Your task to perform on an android device: Open location settings Image 0: 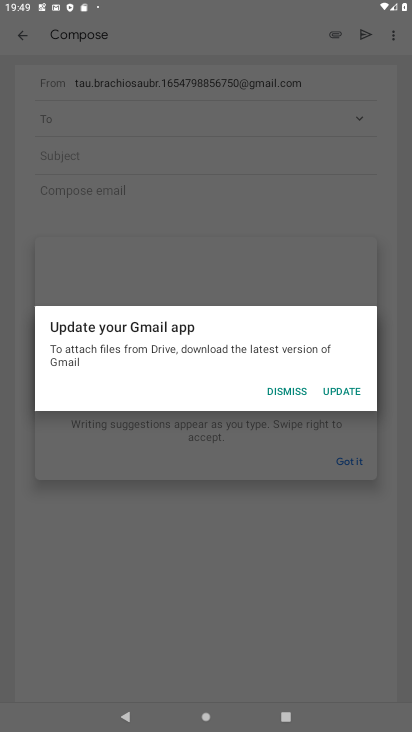
Step 0: press home button
Your task to perform on an android device: Open location settings Image 1: 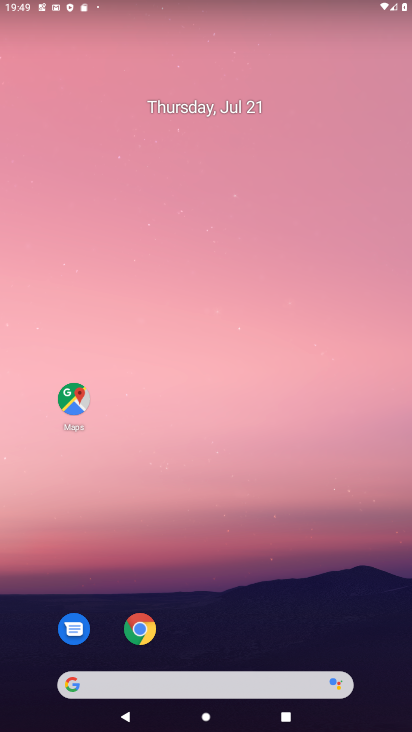
Step 1: drag from (86, 401) to (202, 140)
Your task to perform on an android device: Open location settings Image 2: 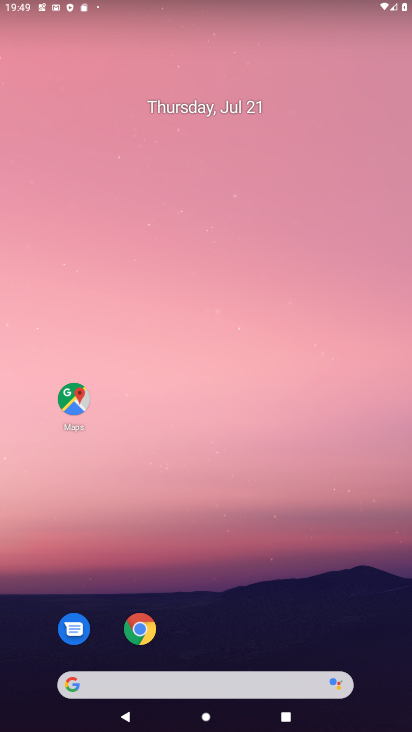
Step 2: drag from (375, 417) to (404, 310)
Your task to perform on an android device: Open location settings Image 3: 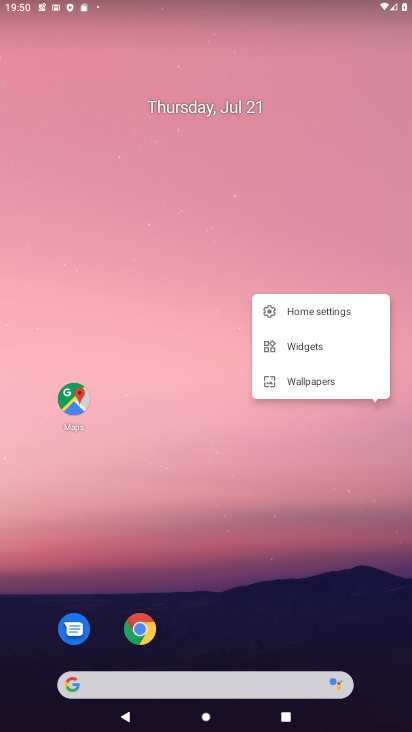
Step 3: press home button
Your task to perform on an android device: Open location settings Image 4: 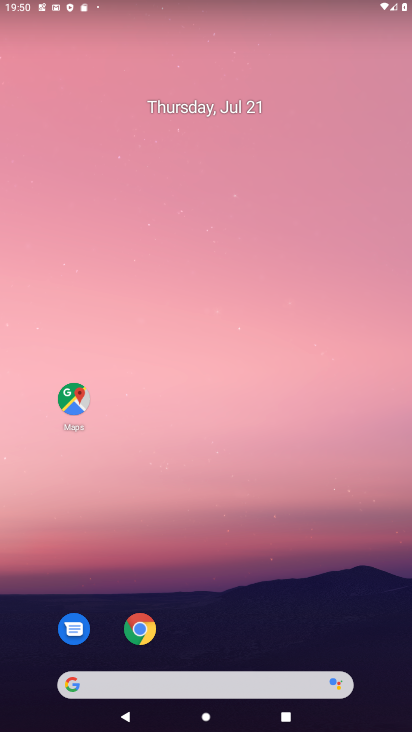
Step 4: drag from (84, 513) to (268, 103)
Your task to perform on an android device: Open location settings Image 5: 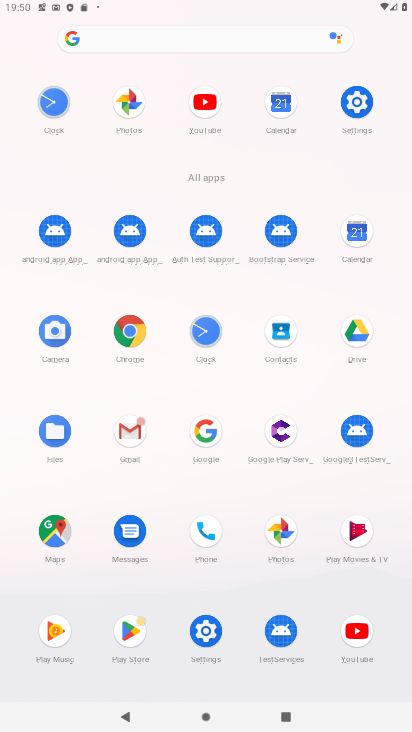
Step 5: click (367, 101)
Your task to perform on an android device: Open location settings Image 6: 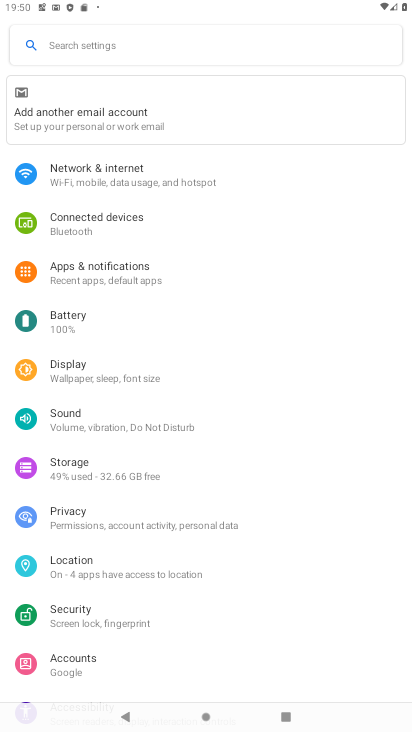
Step 6: click (77, 562)
Your task to perform on an android device: Open location settings Image 7: 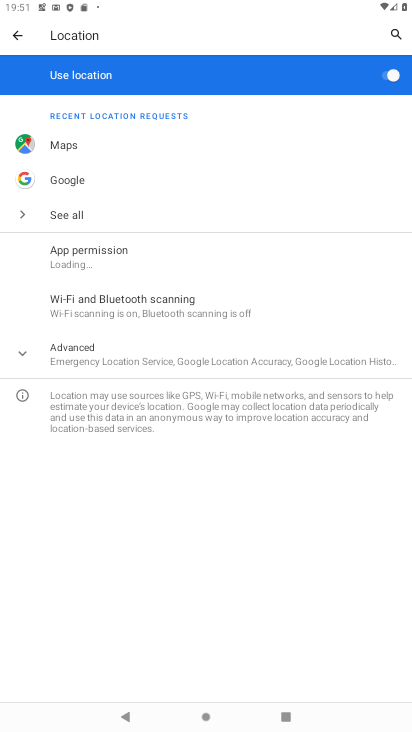
Step 7: task complete